Your task to perform on an android device: read, delete, or share a saved page in the chrome app Image 0: 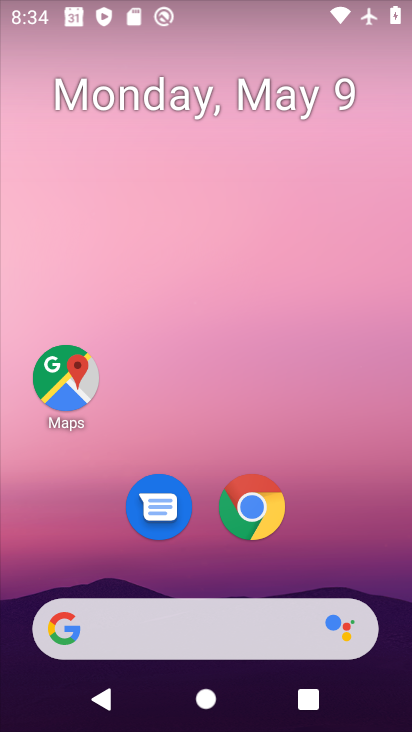
Step 0: click (250, 499)
Your task to perform on an android device: read, delete, or share a saved page in the chrome app Image 1: 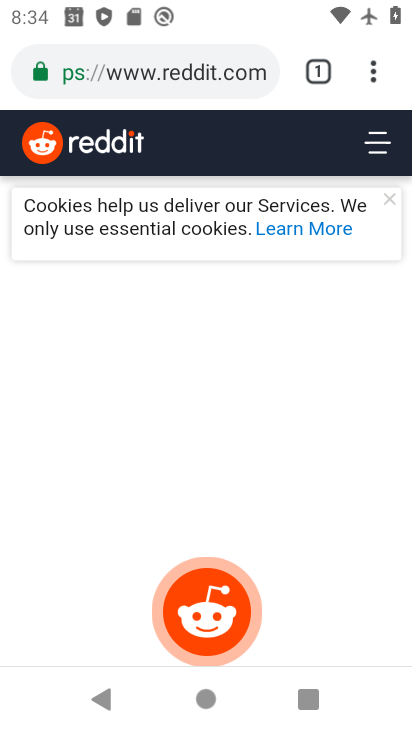
Step 1: click (378, 76)
Your task to perform on an android device: read, delete, or share a saved page in the chrome app Image 2: 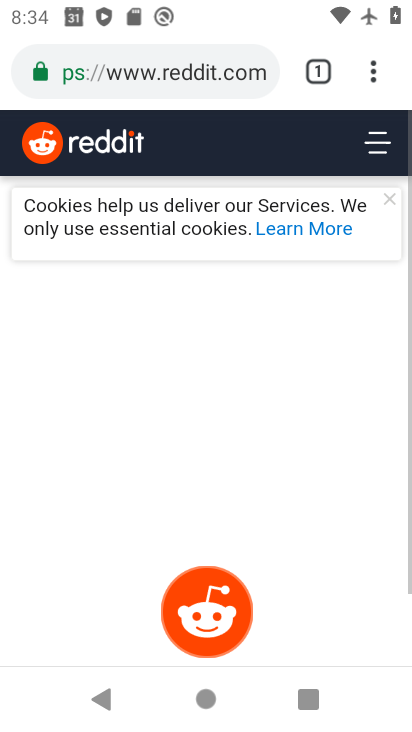
Step 2: drag from (377, 81) to (149, 508)
Your task to perform on an android device: read, delete, or share a saved page in the chrome app Image 3: 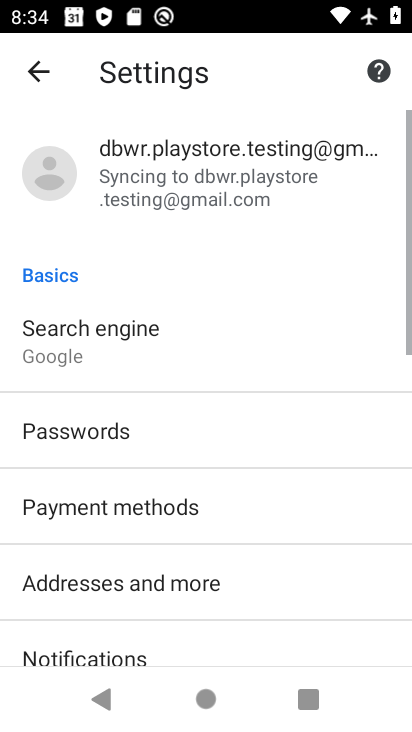
Step 3: drag from (157, 438) to (162, 55)
Your task to perform on an android device: read, delete, or share a saved page in the chrome app Image 4: 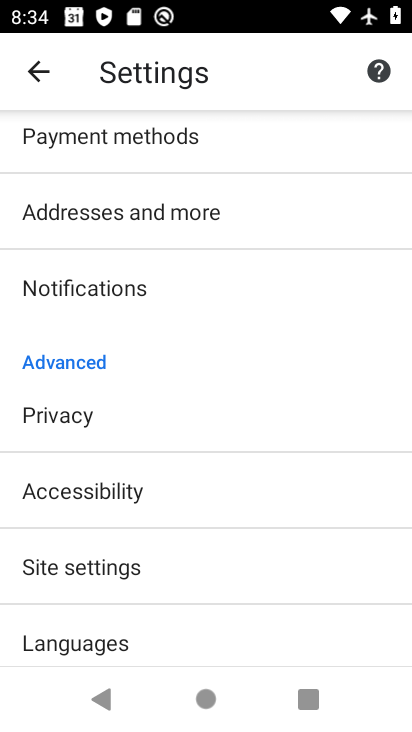
Step 4: drag from (171, 455) to (150, 12)
Your task to perform on an android device: read, delete, or share a saved page in the chrome app Image 5: 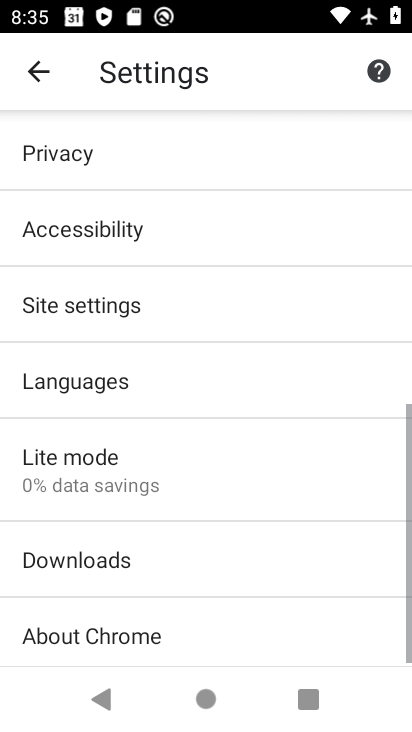
Step 5: click (117, 578)
Your task to perform on an android device: read, delete, or share a saved page in the chrome app Image 6: 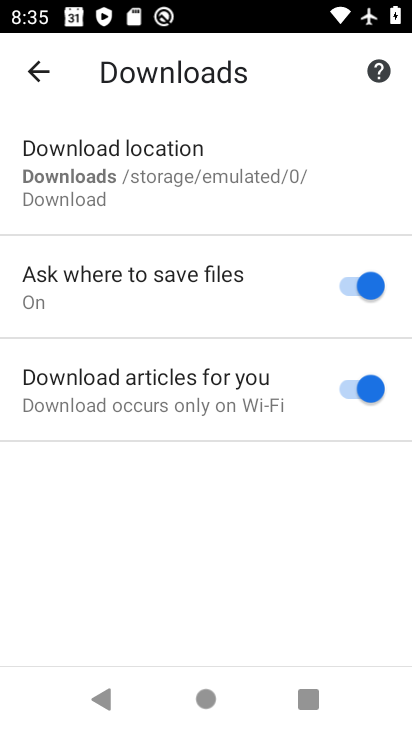
Step 6: task complete